Your task to perform on an android device: turn on notifications settings in the gmail app Image 0: 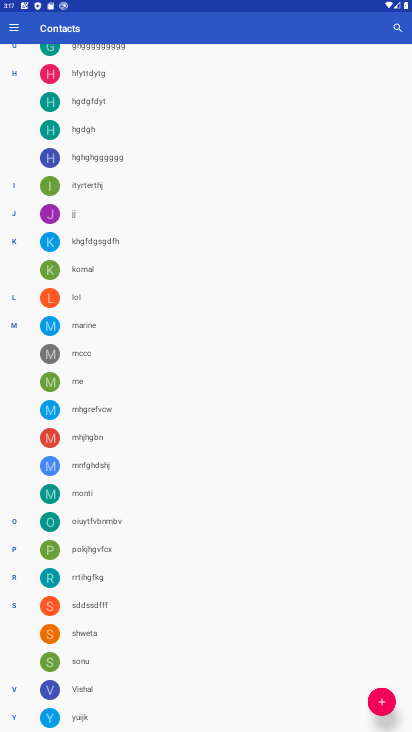
Step 0: press home button
Your task to perform on an android device: turn on notifications settings in the gmail app Image 1: 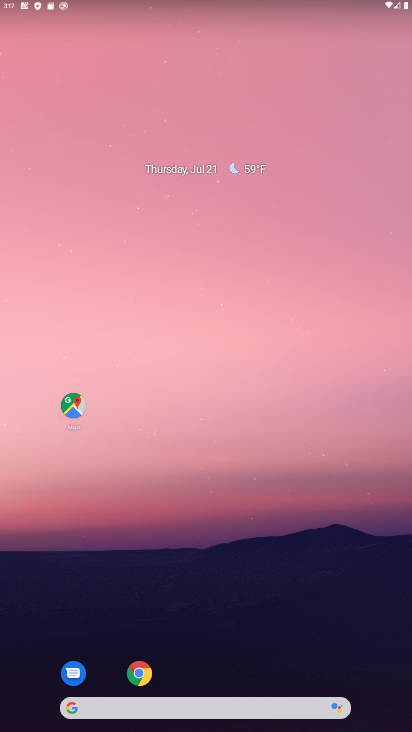
Step 1: drag from (397, 670) to (326, 229)
Your task to perform on an android device: turn on notifications settings in the gmail app Image 2: 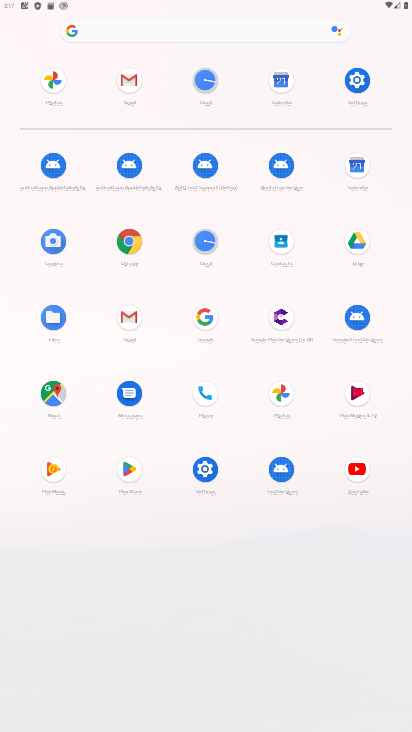
Step 2: click (126, 317)
Your task to perform on an android device: turn on notifications settings in the gmail app Image 3: 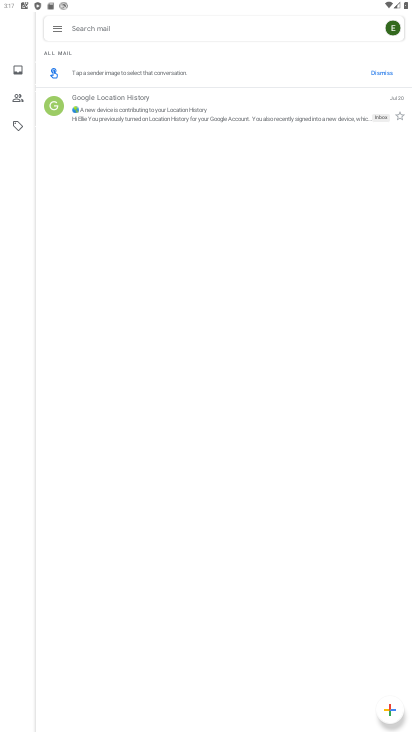
Step 3: click (52, 33)
Your task to perform on an android device: turn on notifications settings in the gmail app Image 4: 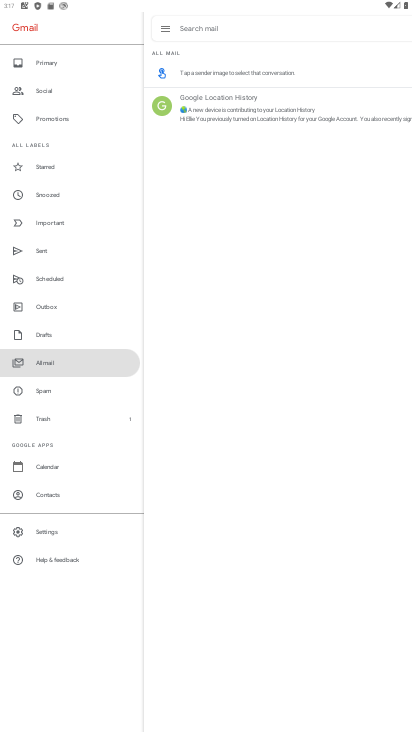
Step 4: click (48, 524)
Your task to perform on an android device: turn on notifications settings in the gmail app Image 5: 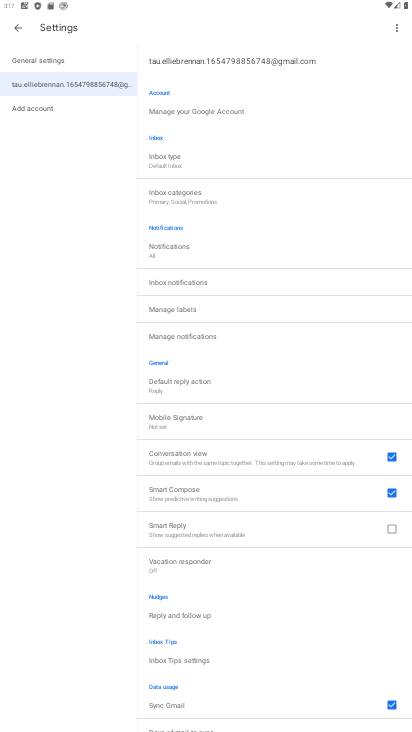
Step 5: click (192, 340)
Your task to perform on an android device: turn on notifications settings in the gmail app Image 6: 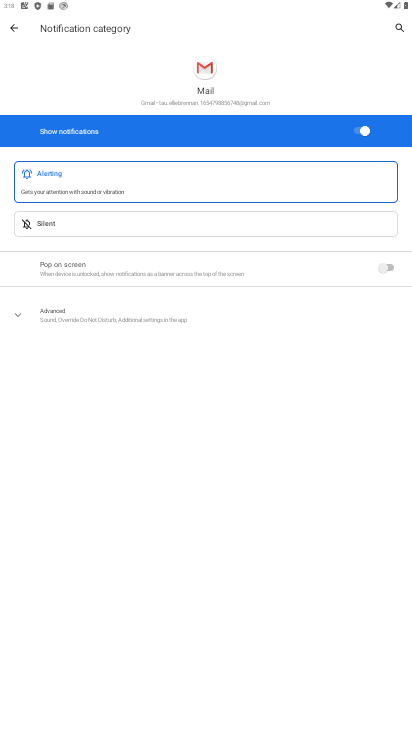
Step 6: task complete